Your task to perform on an android device: Show me popular games on the Play Store Image 0: 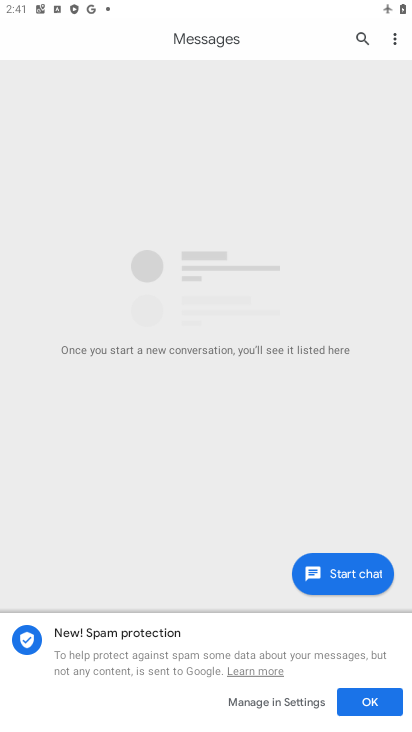
Step 0: press home button
Your task to perform on an android device: Show me popular games on the Play Store Image 1: 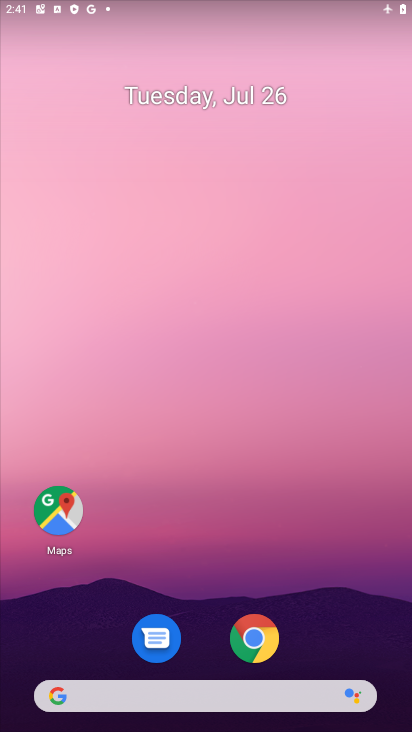
Step 1: drag from (231, 725) to (248, 7)
Your task to perform on an android device: Show me popular games on the Play Store Image 2: 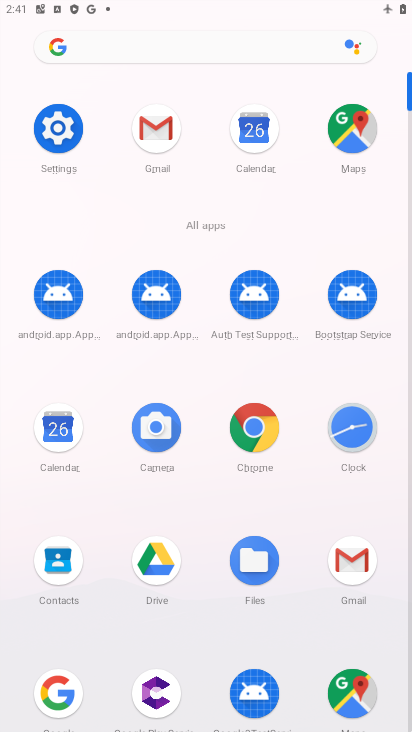
Step 2: drag from (230, 616) to (257, 76)
Your task to perform on an android device: Show me popular games on the Play Store Image 3: 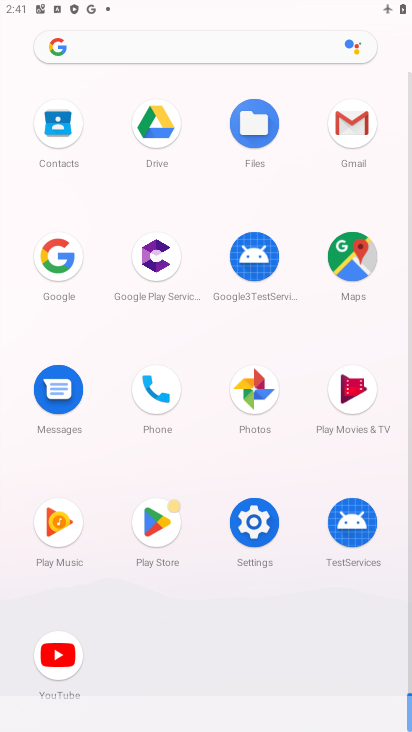
Step 3: click (159, 518)
Your task to perform on an android device: Show me popular games on the Play Store Image 4: 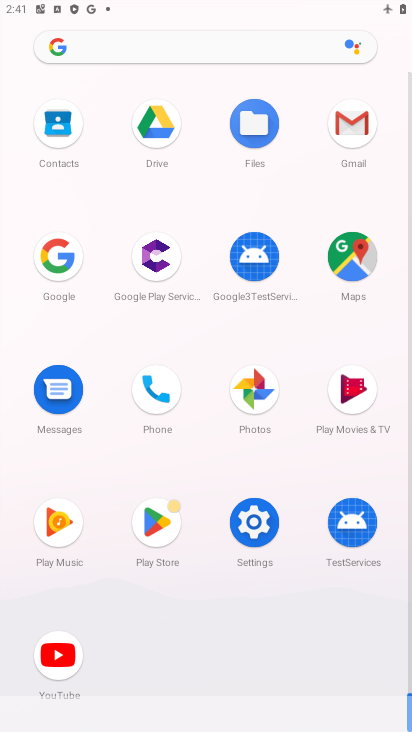
Step 4: click (159, 518)
Your task to perform on an android device: Show me popular games on the Play Store Image 5: 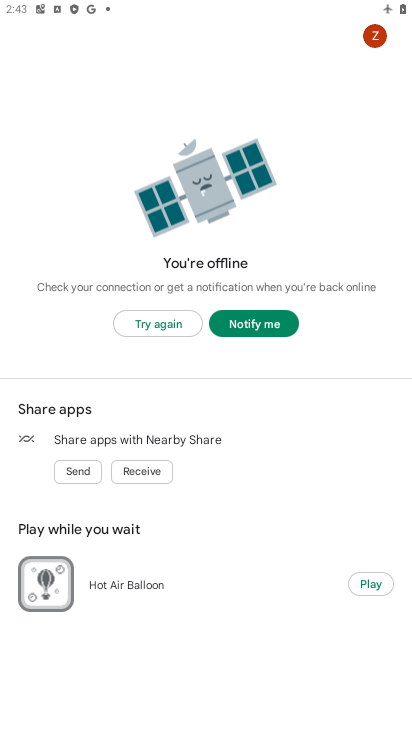
Step 5: task complete